Your task to perform on an android device: toggle airplane mode Image 0: 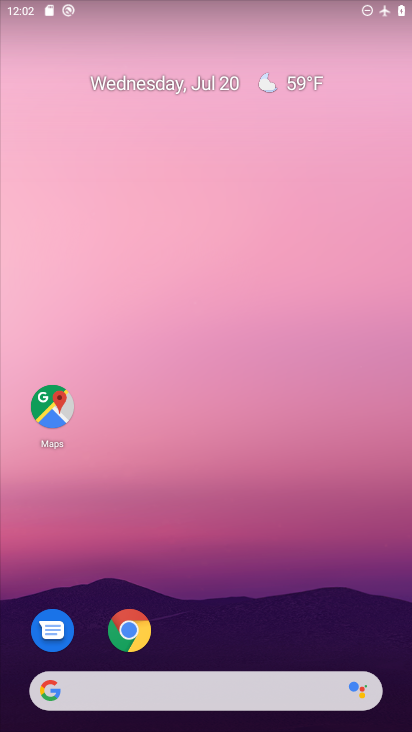
Step 0: drag from (249, 242) to (218, 57)
Your task to perform on an android device: toggle airplane mode Image 1: 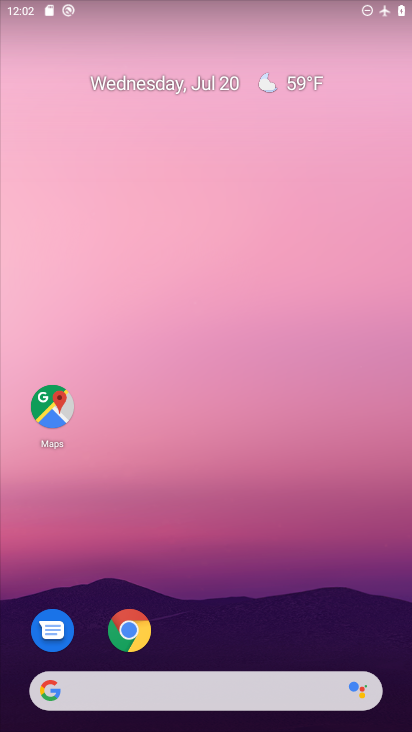
Step 1: drag from (212, 607) to (329, 12)
Your task to perform on an android device: toggle airplane mode Image 2: 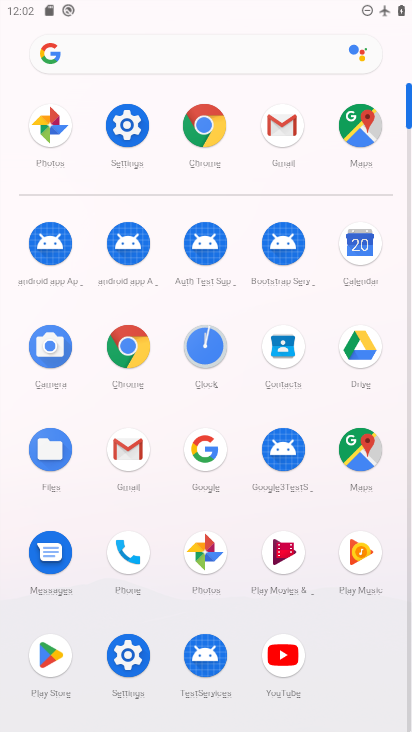
Step 2: click (124, 130)
Your task to perform on an android device: toggle airplane mode Image 3: 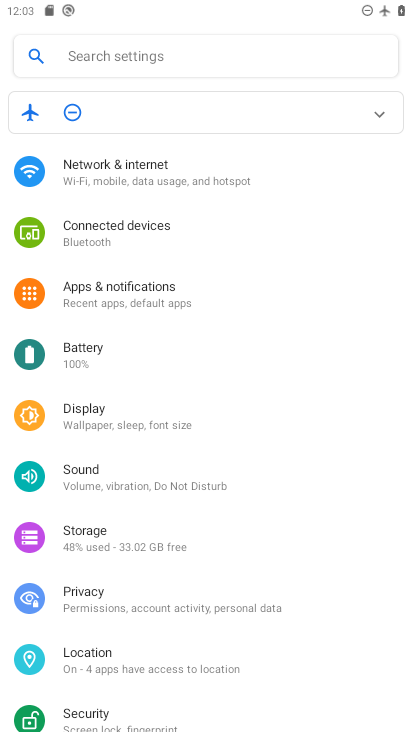
Step 3: click (214, 169)
Your task to perform on an android device: toggle airplane mode Image 4: 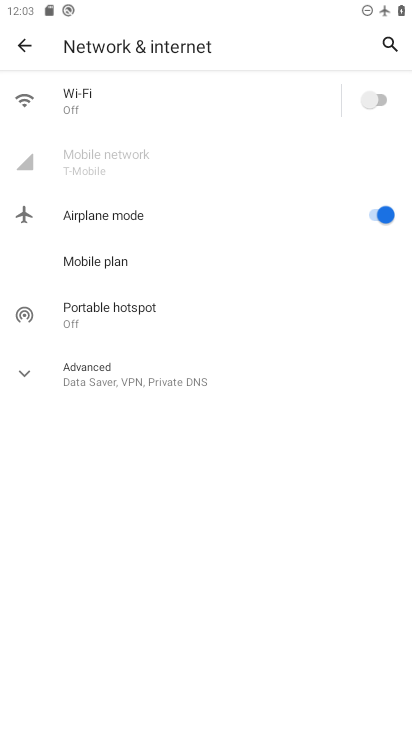
Step 4: click (373, 214)
Your task to perform on an android device: toggle airplane mode Image 5: 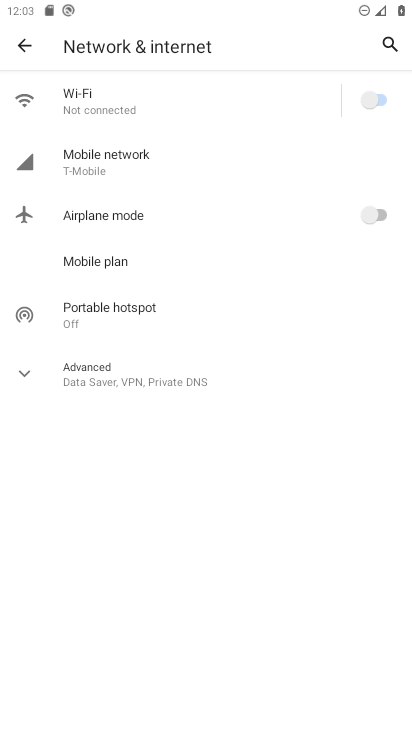
Step 5: task complete